Your task to perform on an android device: Search for seafood restaurants on Google Maps Image 0: 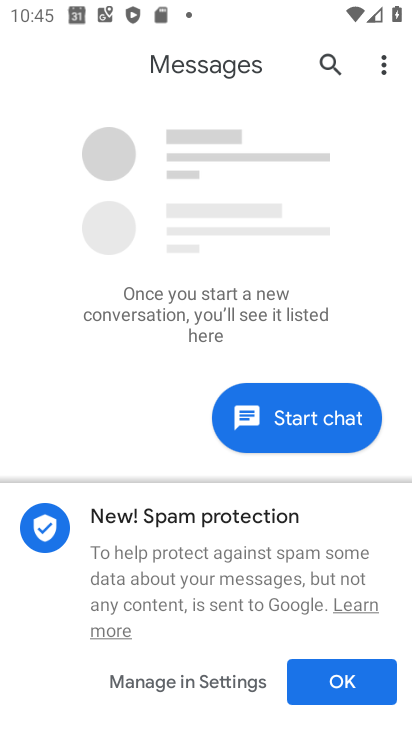
Step 0: press home button
Your task to perform on an android device: Search for seafood restaurants on Google Maps Image 1: 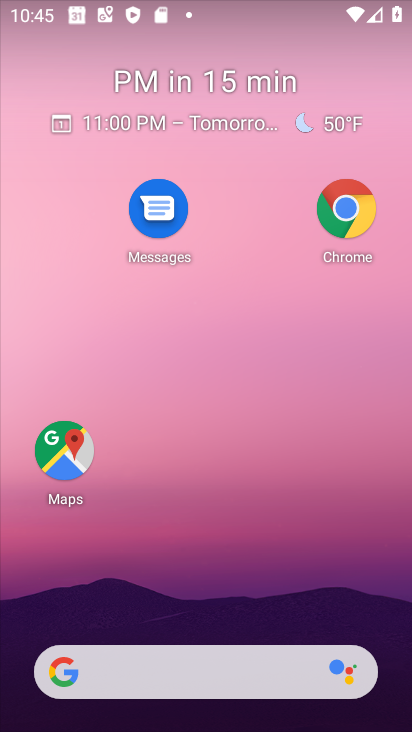
Step 1: click (60, 436)
Your task to perform on an android device: Search for seafood restaurants on Google Maps Image 2: 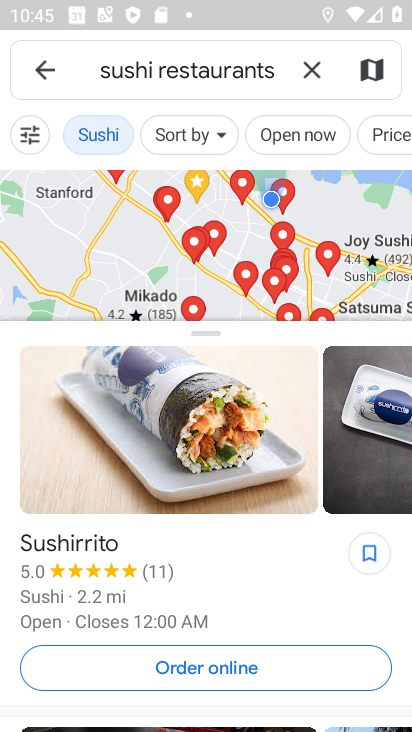
Step 2: click (306, 70)
Your task to perform on an android device: Search for seafood restaurants on Google Maps Image 3: 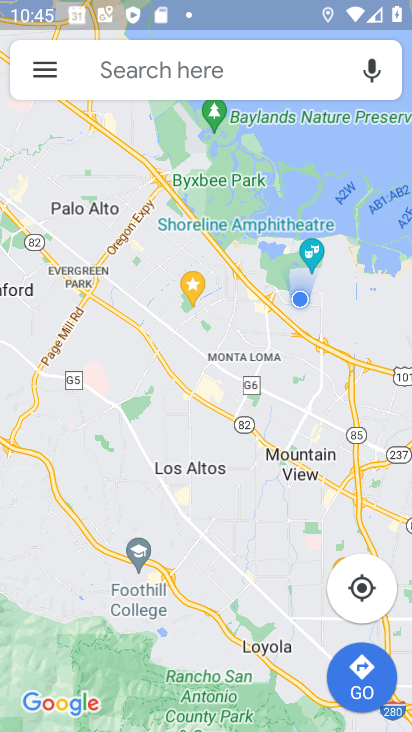
Step 3: click (264, 77)
Your task to perform on an android device: Search for seafood restaurants on Google Maps Image 4: 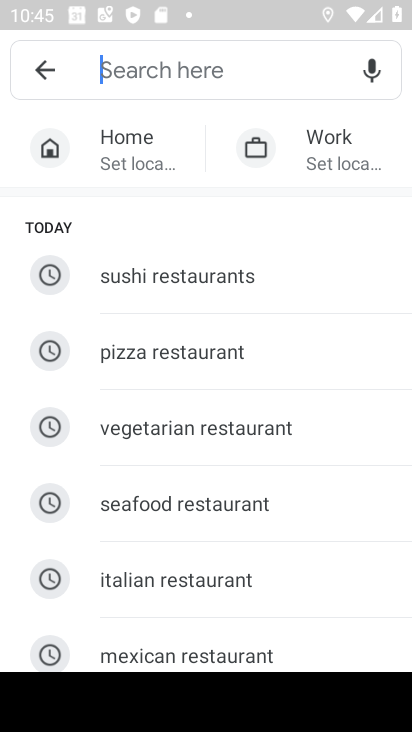
Step 4: click (194, 502)
Your task to perform on an android device: Search for seafood restaurants on Google Maps Image 5: 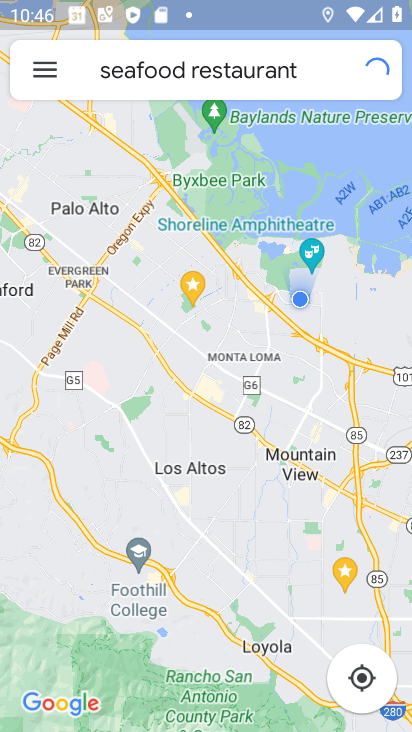
Step 5: task complete